Your task to perform on an android device: toggle airplane mode Image 0: 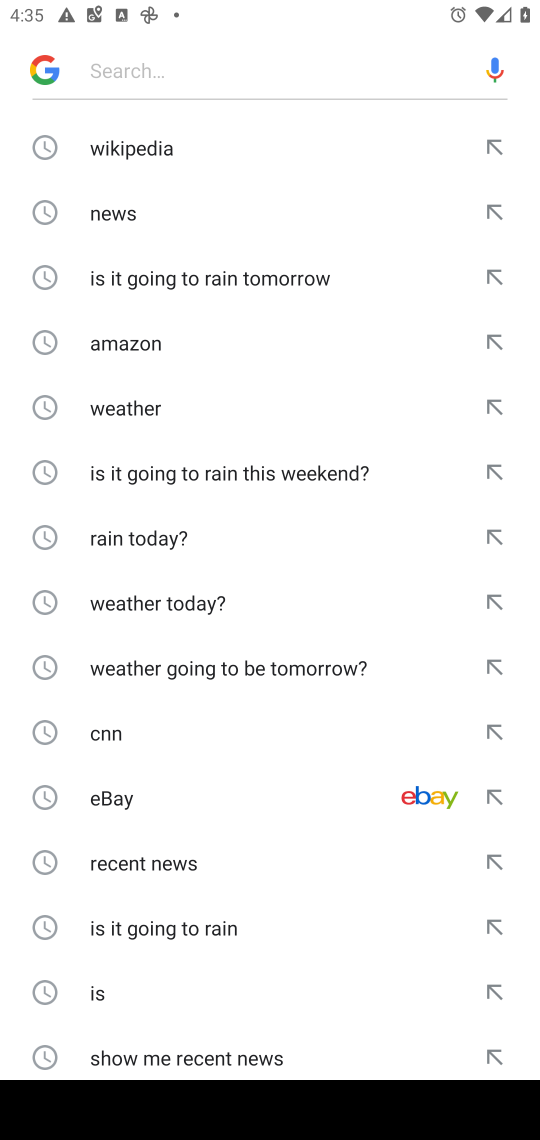
Step 0: press home button
Your task to perform on an android device: toggle airplane mode Image 1: 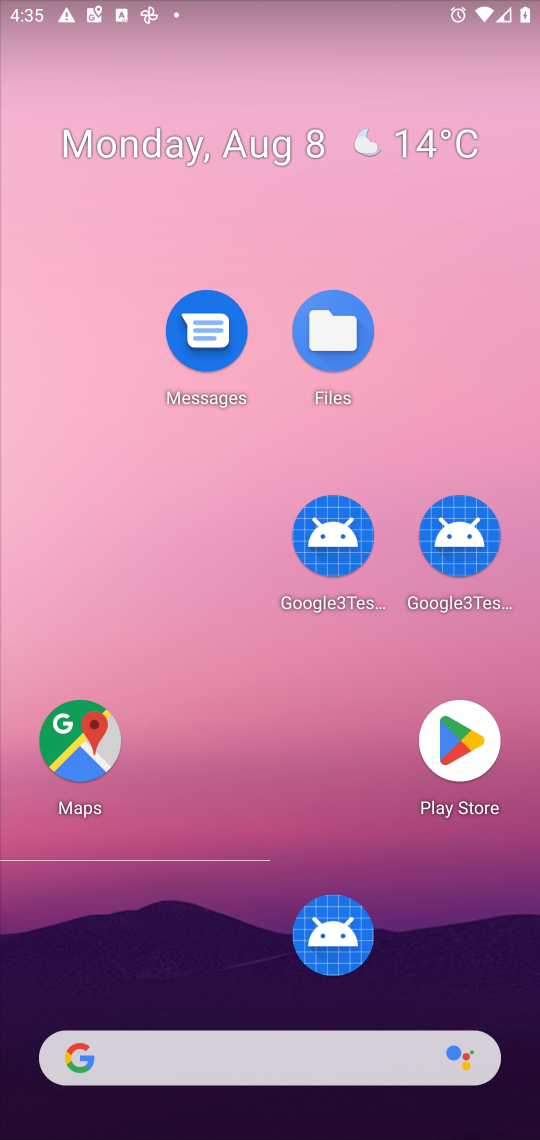
Step 1: drag from (253, 1072) to (230, 245)
Your task to perform on an android device: toggle airplane mode Image 2: 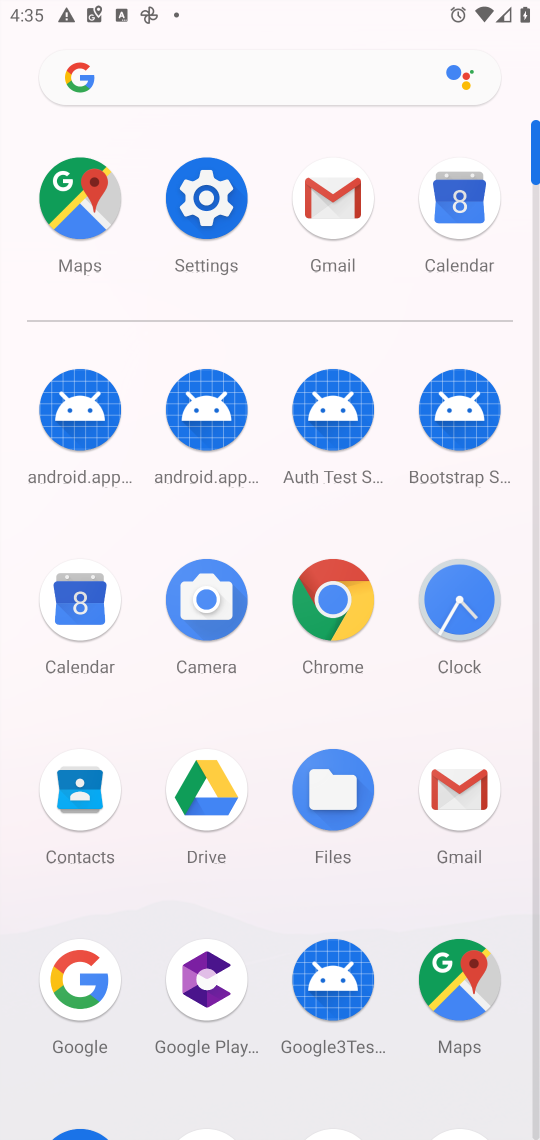
Step 2: click (206, 201)
Your task to perform on an android device: toggle airplane mode Image 3: 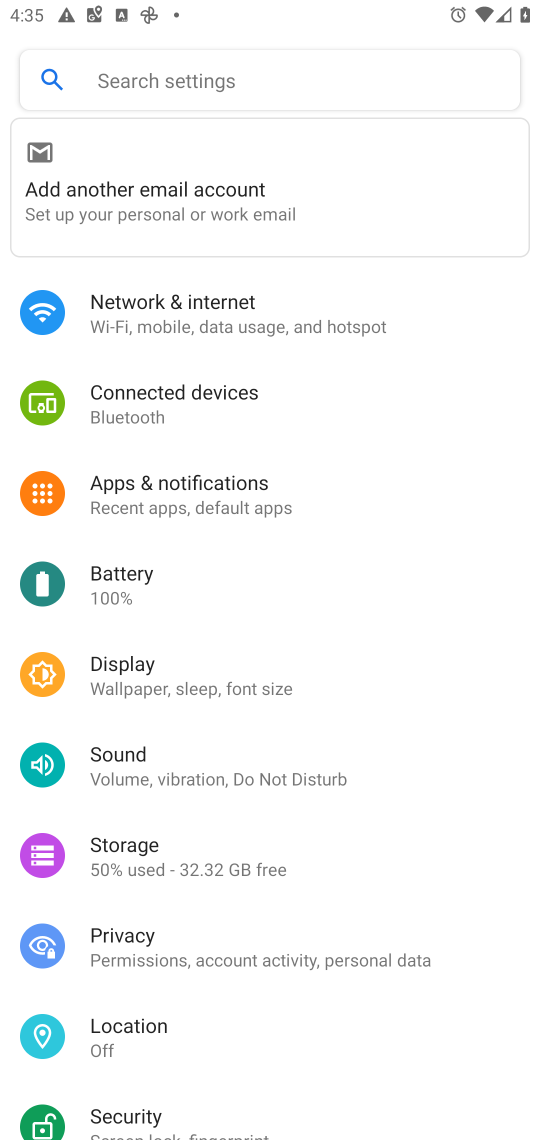
Step 3: click (206, 201)
Your task to perform on an android device: toggle airplane mode Image 4: 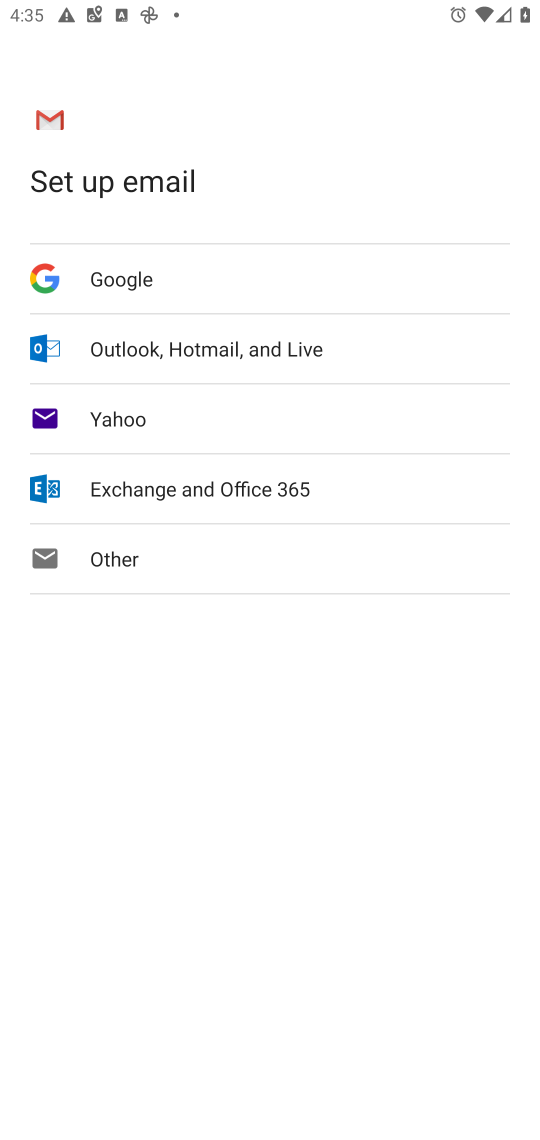
Step 4: press back button
Your task to perform on an android device: toggle airplane mode Image 5: 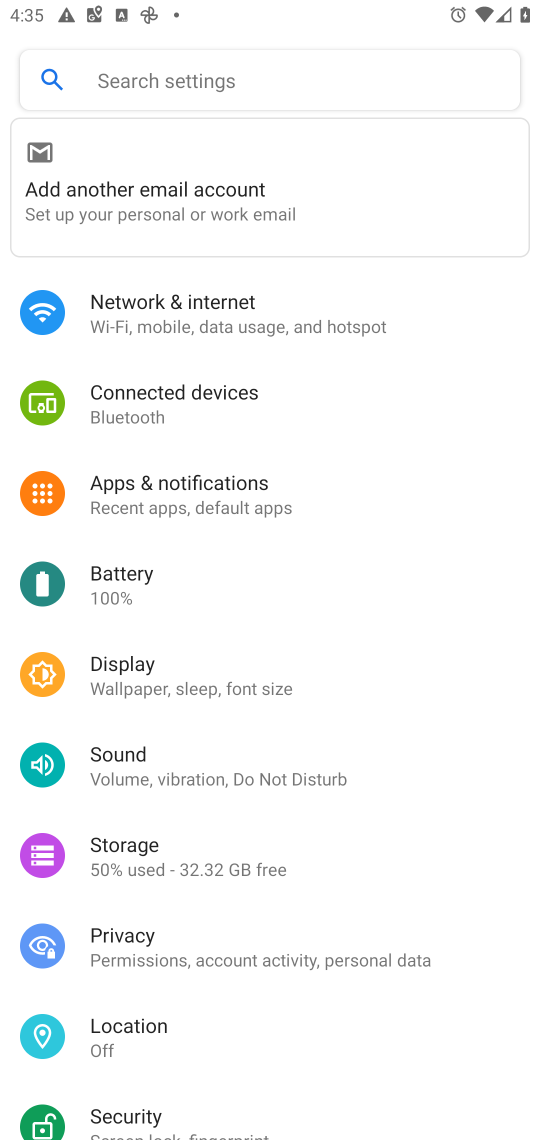
Step 5: click (368, 336)
Your task to perform on an android device: toggle airplane mode Image 6: 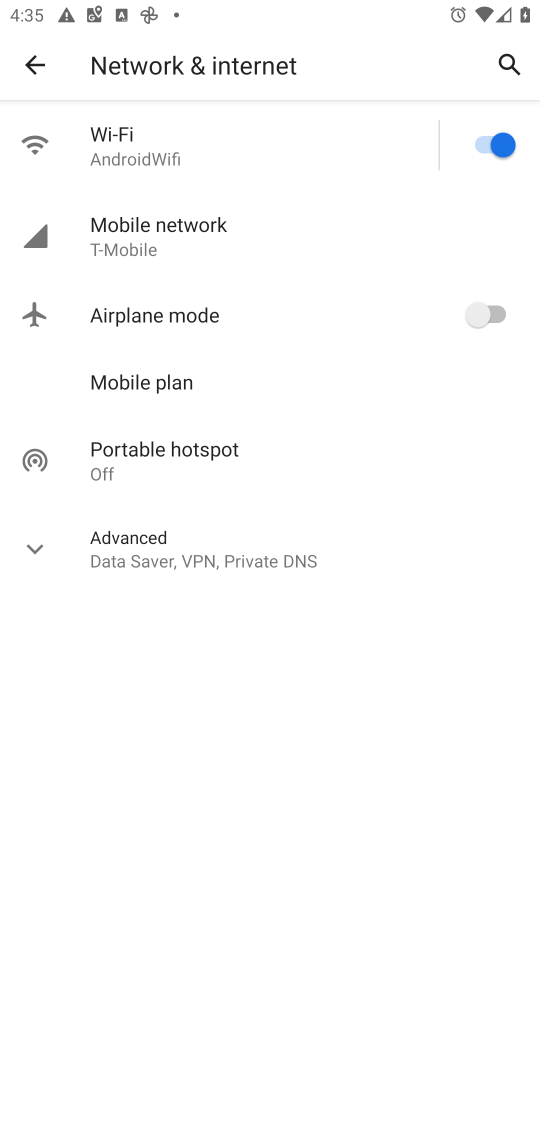
Step 6: click (500, 304)
Your task to perform on an android device: toggle airplane mode Image 7: 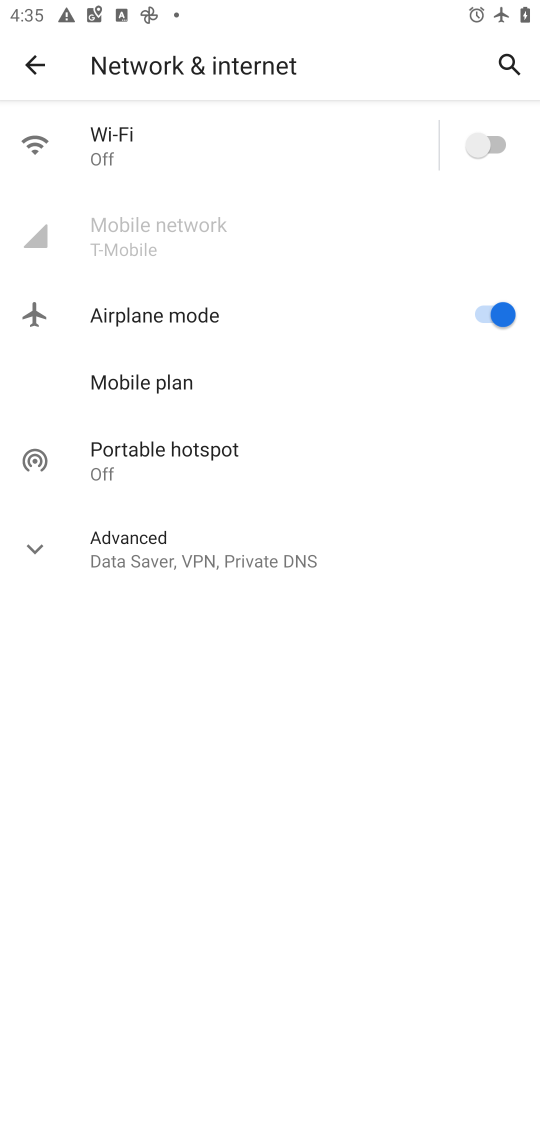
Step 7: task complete